Your task to perform on an android device: toggle wifi Image 0: 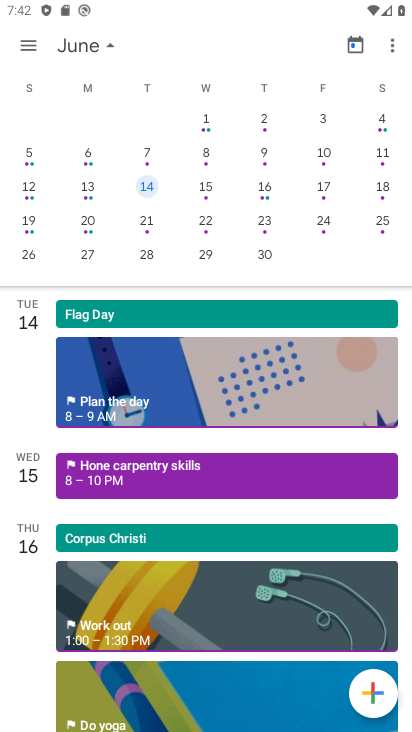
Step 0: press home button
Your task to perform on an android device: toggle wifi Image 1: 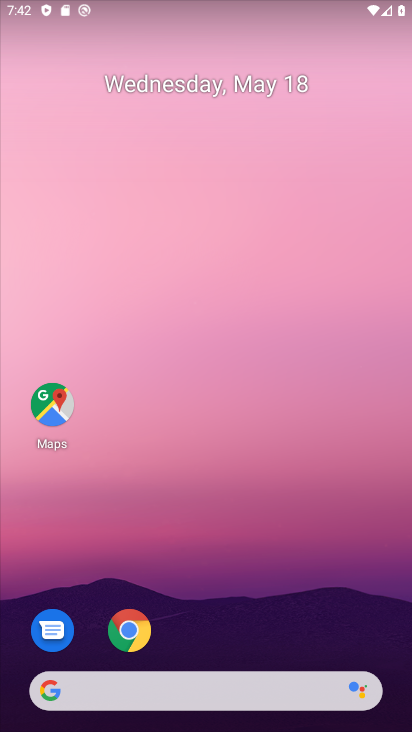
Step 1: drag from (282, 588) to (296, 101)
Your task to perform on an android device: toggle wifi Image 2: 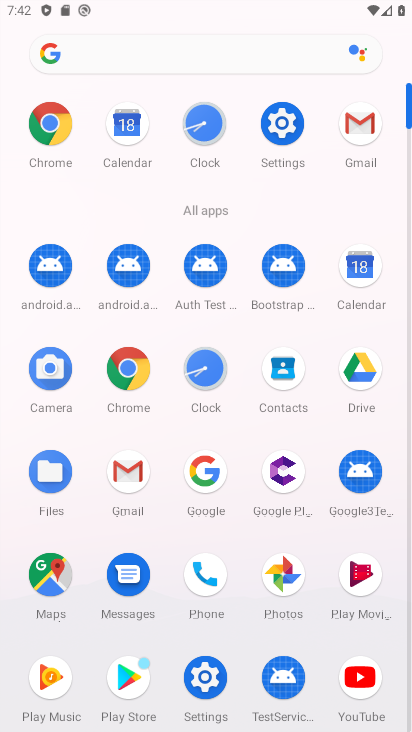
Step 2: click (261, 136)
Your task to perform on an android device: toggle wifi Image 3: 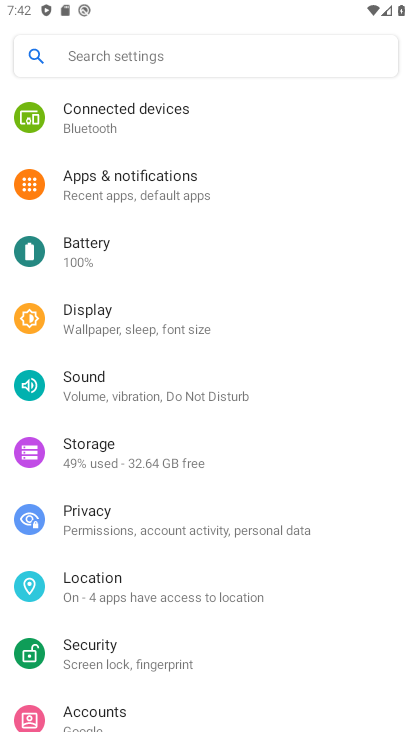
Step 3: drag from (265, 140) to (232, 541)
Your task to perform on an android device: toggle wifi Image 4: 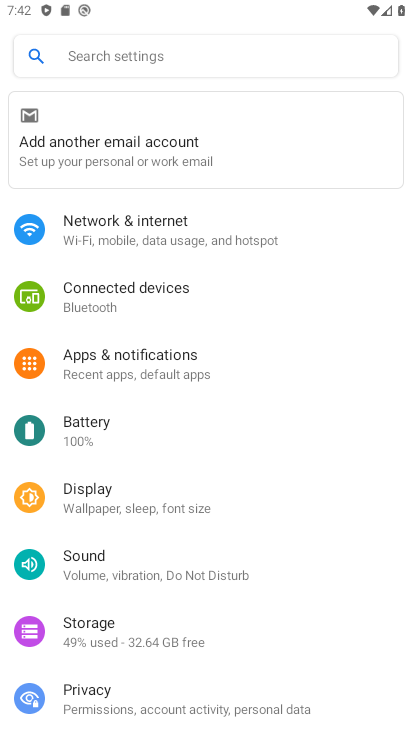
Step 4: click (98, 251)
Your task to perform on an android device: toggle wifi Image 5: 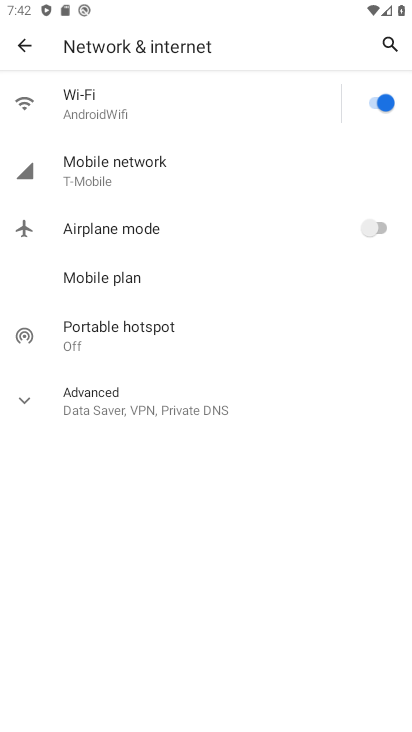
Step 5: click (372, 106)
Your task to perform on an android device: toggle wifi Image 6: 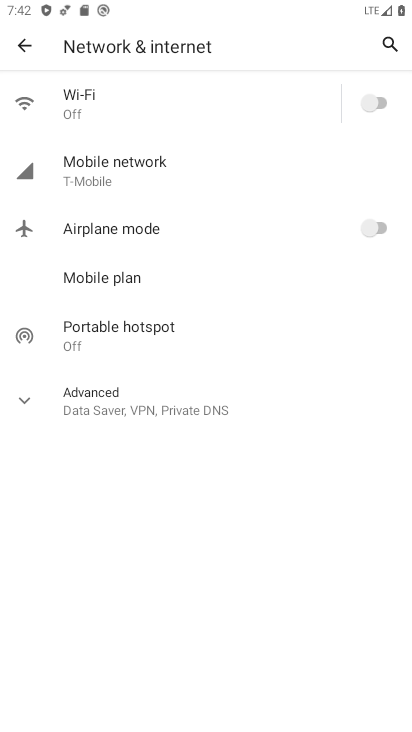
Step 6: task complete